Your task to perform on an android device: change text size in settings app Image 0: 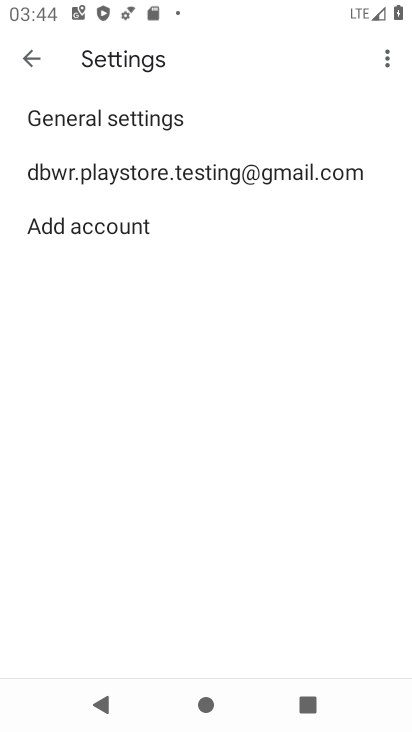
Step 0: press home button
Your task to perform on an android device: change text size in settings app Image 1: 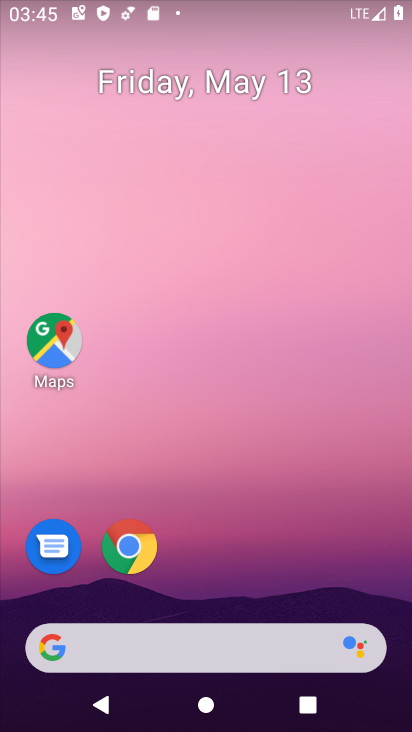
Step 1: drag from (172, 607) to (246, 192)
Your task to perform on an android device: change text size in settings app Image 2: 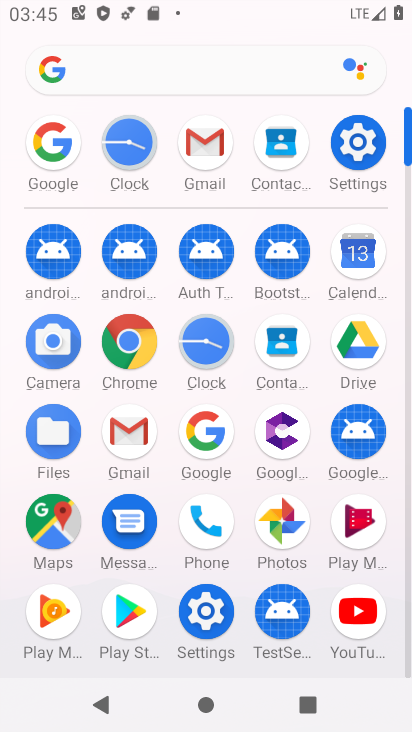
Step 2: click (362, 147)
Your task to perform on an android device: change text size in settings app Image 3: 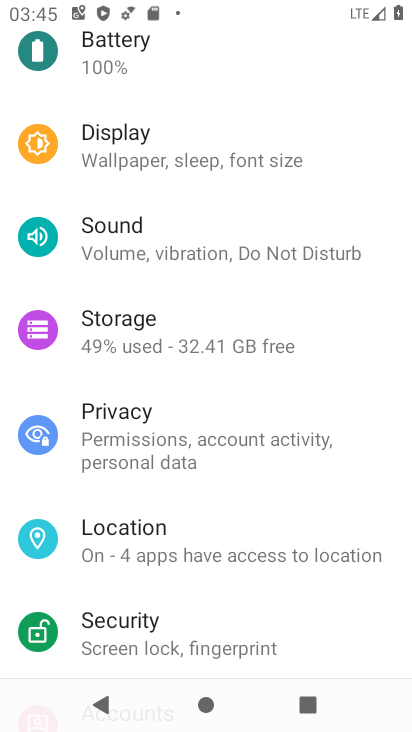
Step 3: click (162, 162)
Your task to perform on an android device: change text size in settings app Image 4: 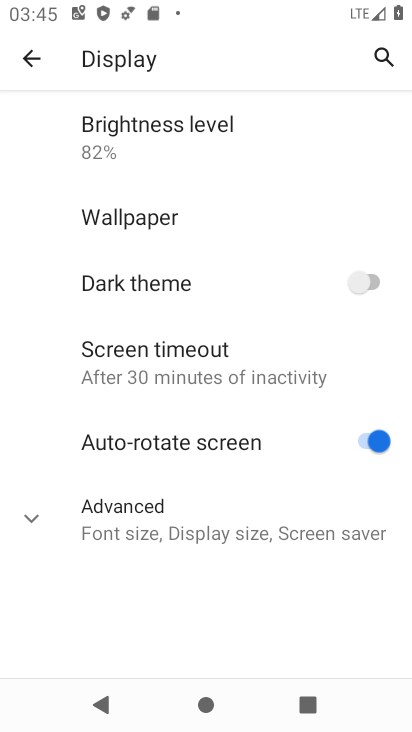
Step 4: click (270, 541)
Your task to perform on an android device: change text size in settings app Image 5: 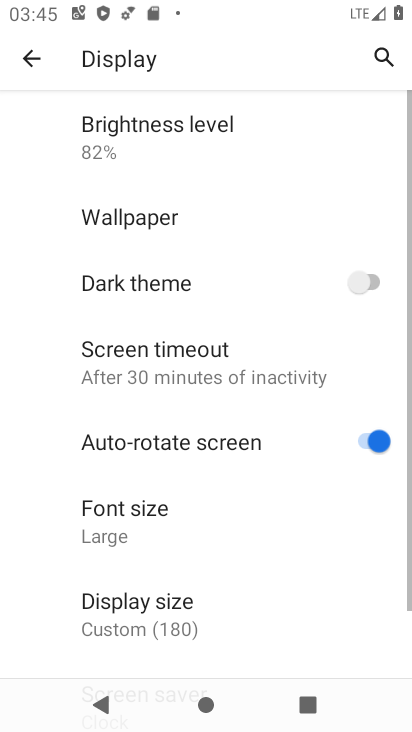
Step 5: click (257, 534)
Your task to perform on an android device: change text size in settings app Image 6: 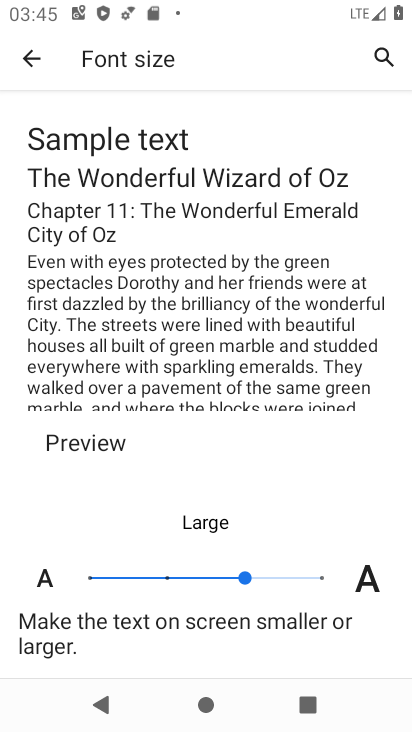
Step 6: click (106, 574)
Your task to perform on an android device: change text size in settings app Image 7: 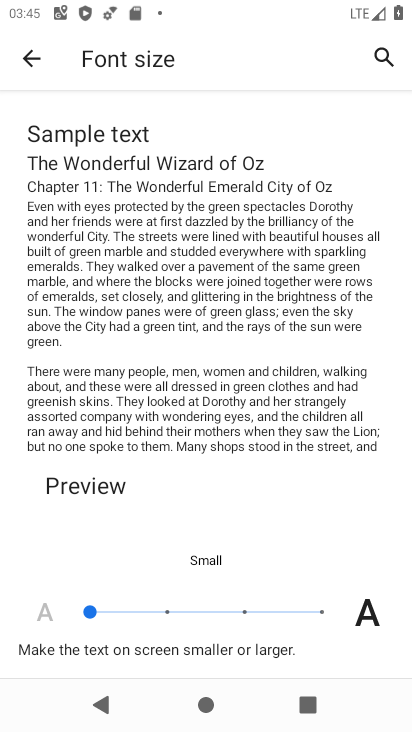
Step 7: task complete